Your task to perform on an android device: What is the recent news? Image 0: 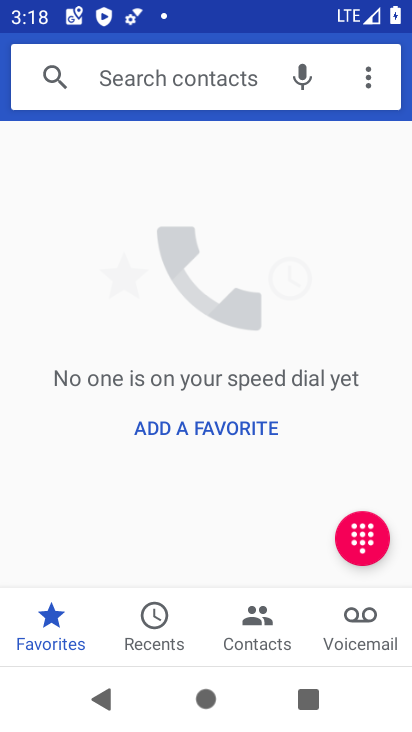
Step 0: press home button
Your task to perform on an android device: What is the recent news? Image 1: 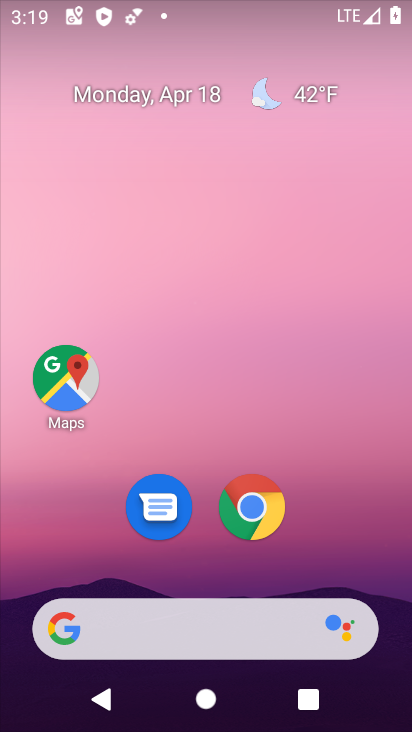
Step 1: click (274, 513)
Your task to perform on an android device: What is the recent news? Image 2: 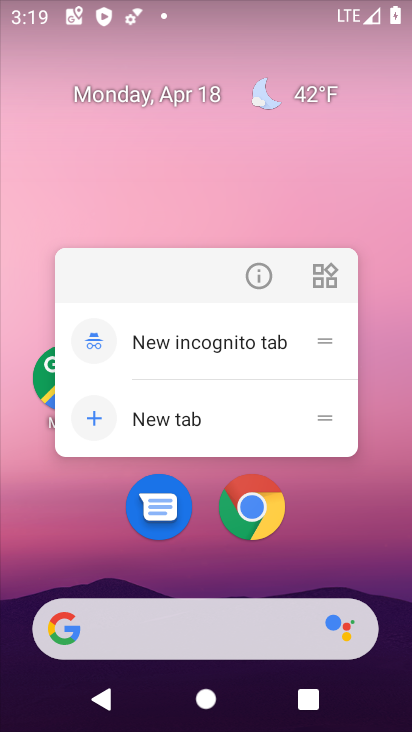
Step 2: click (285, 509)
Your task to perform on an android device: What is the recent news? Image 3: 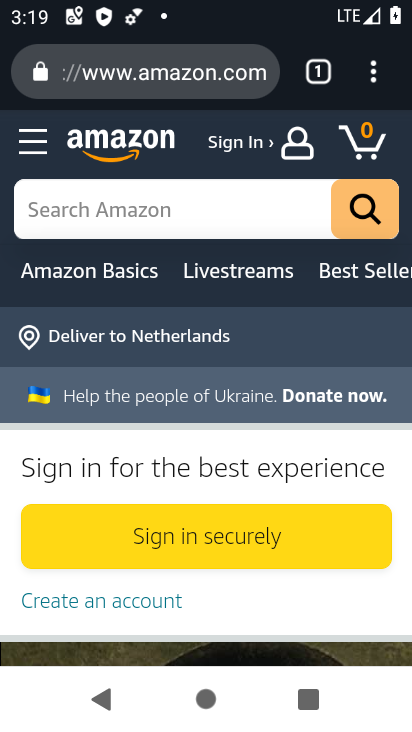
Step 3: click (318, 79)
Your task to perform on an android device: What is the recent news? Image 4: 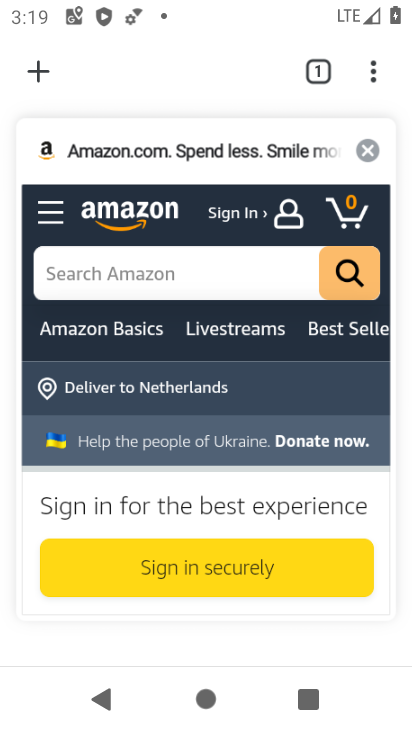
Step 4: click (42, 69)
Your task to perform on an android device: What is the recent news? Image 5: 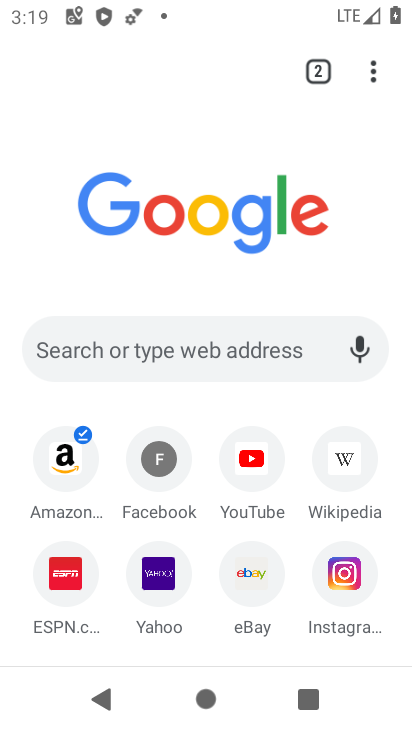
Step 5: click (202, 349)
Your task to perform on an android device: What is the recent news? Image 6: 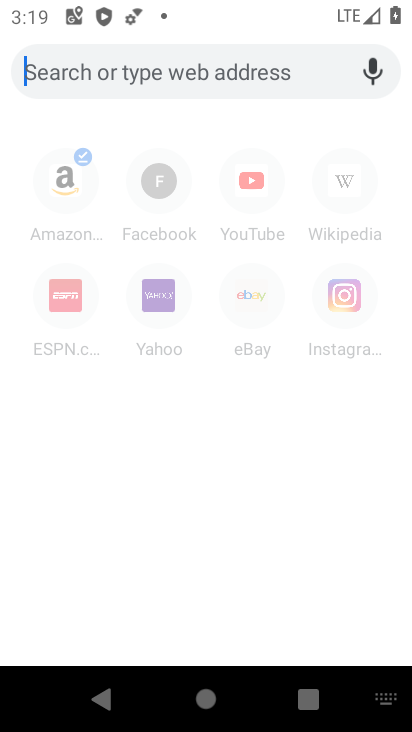
Step 6: type "recent news"
Your task to perform on an android device: What is the recent news? Image 7: 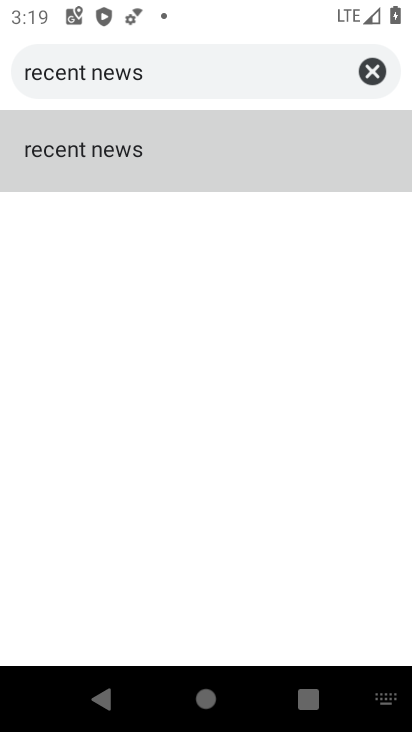
Step 7: click (110, 149)
Your task to perform on an android device: What is the recent news? Image 8: 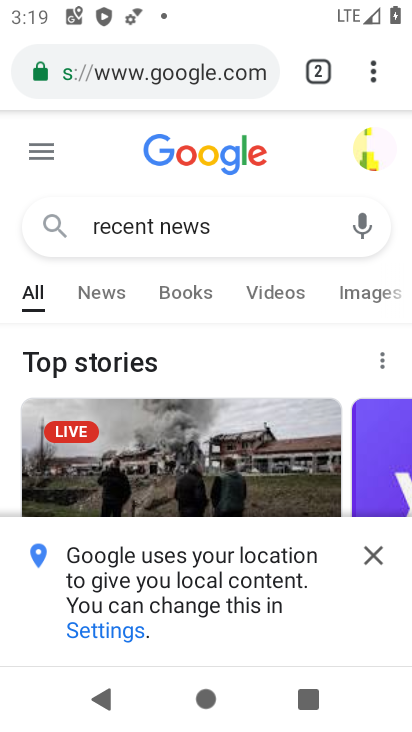
Step 8: task complete